Your task to perform on an android device: Check the weather Image 0: 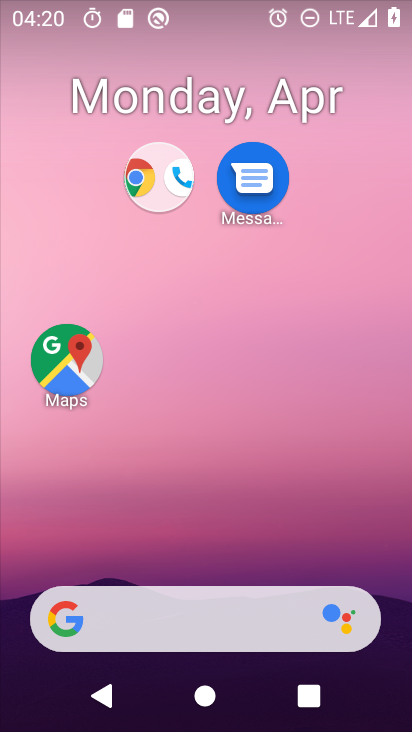
Step 0: drag from (266, 569) to (234, 6)
Your task to perform on an android device: Check the weather Image 1: 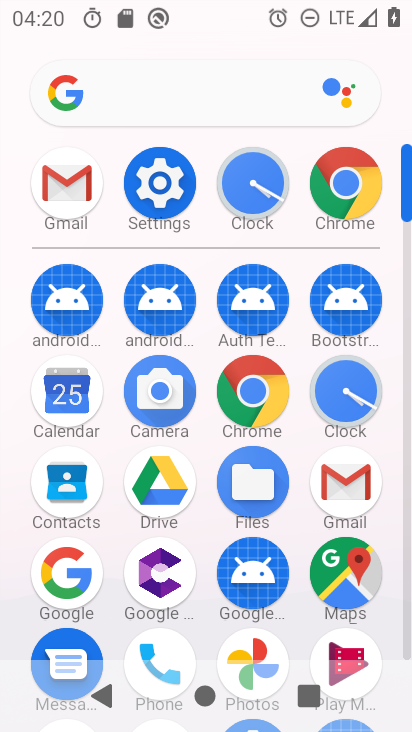
Step 1: drag from (298, 545) to (292, 243)
Your task to perform on an android device: Check the weather Image 2: 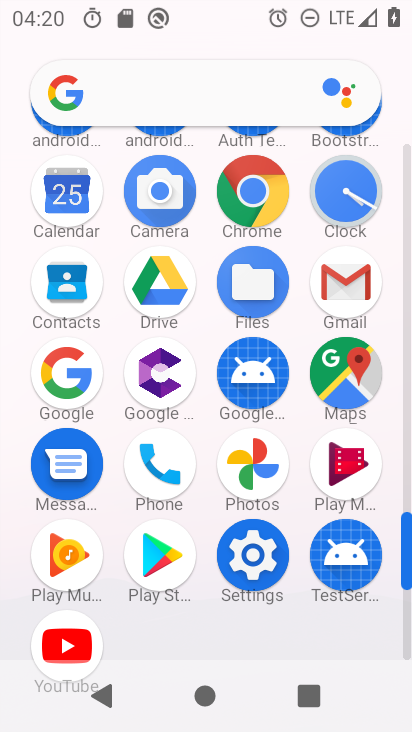
Step 2: click (246, 198)
Your task to perform on an android device: Check the weather Image 3: 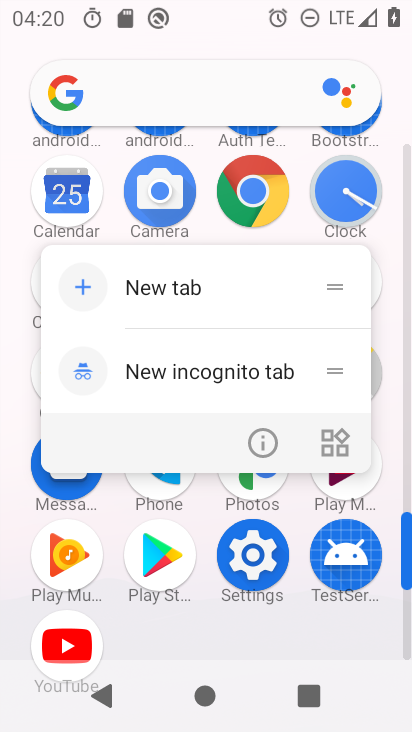
Step 3: click (246, 198)
Your task to perform on an android device: Check the weather Image 4: 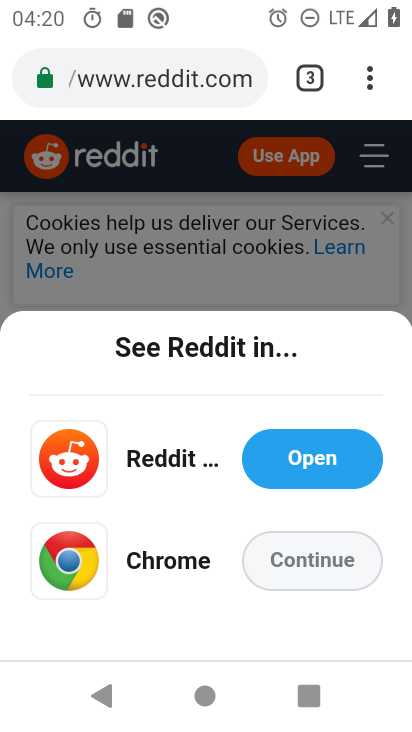
Step 4: click (352, 275)
Your task to perform on an android device: Check the weather Image 5: 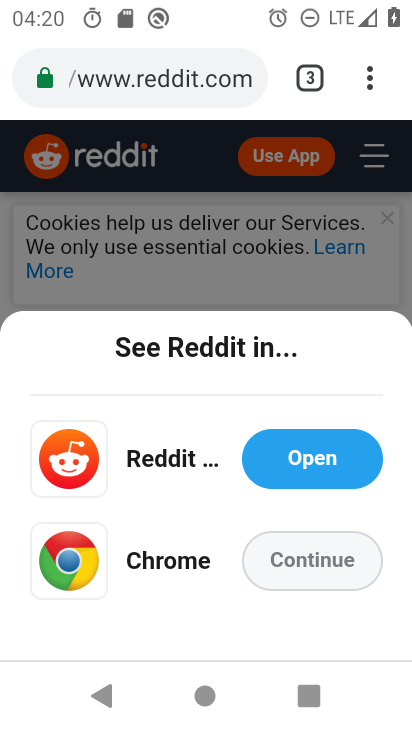
Step 5: click (225, 61)
Your task to perform on an android device: Check the weather Image 6: 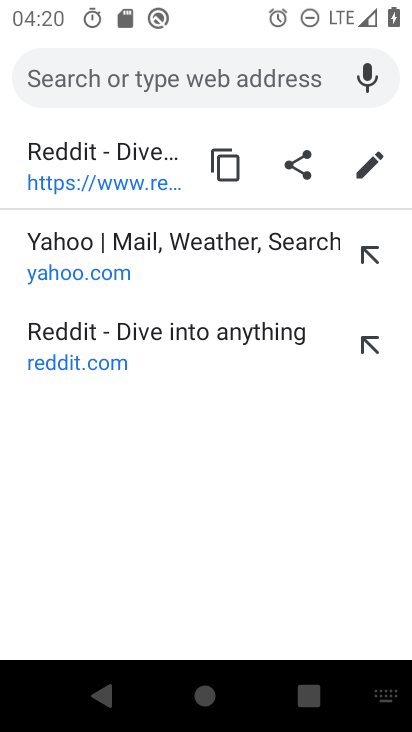
Step 6: type "weather"
Your task to perform on an android device: Check the weather Image 7: 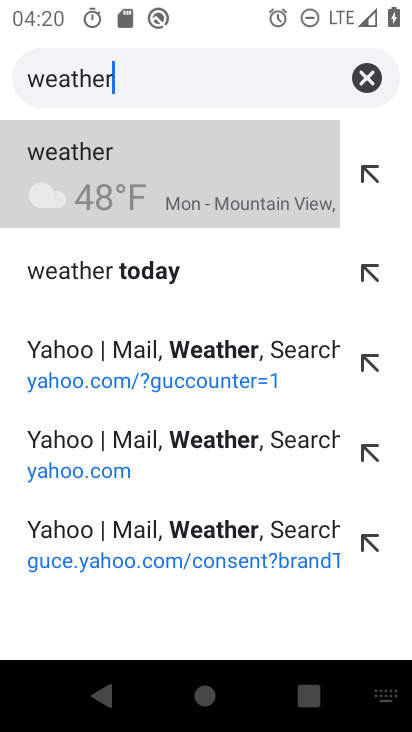
Step 7: click (258, 206)
Your task to perform on an android device: Check the weather Image 8: 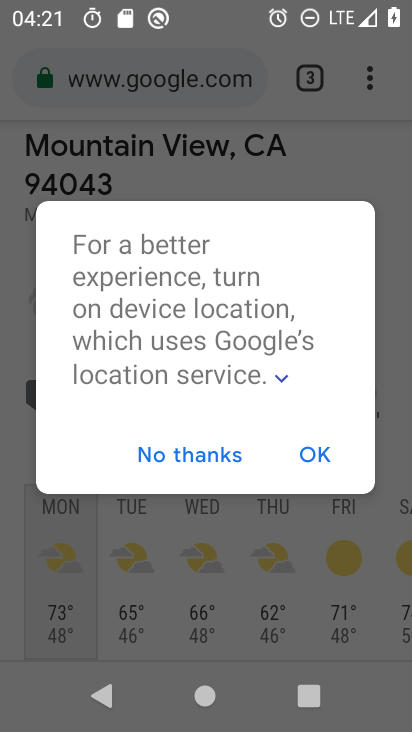
Step 8: click (216, 451)
Your task to perform on an android device: Check the weather Image 9: 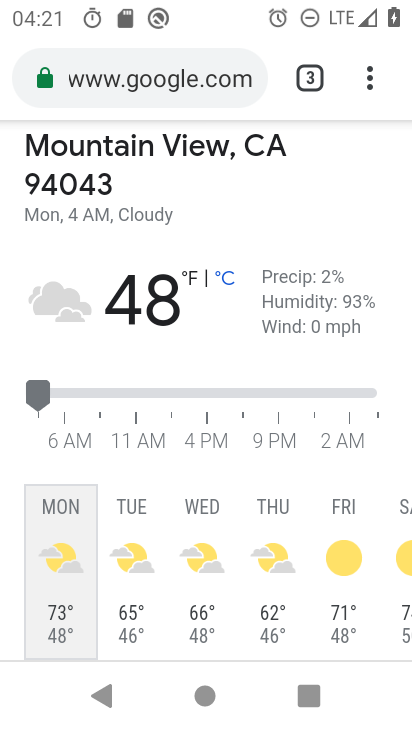
Step 9: task complete